Your task to perform on an android device: Do I have any events this weekend? Image 0: 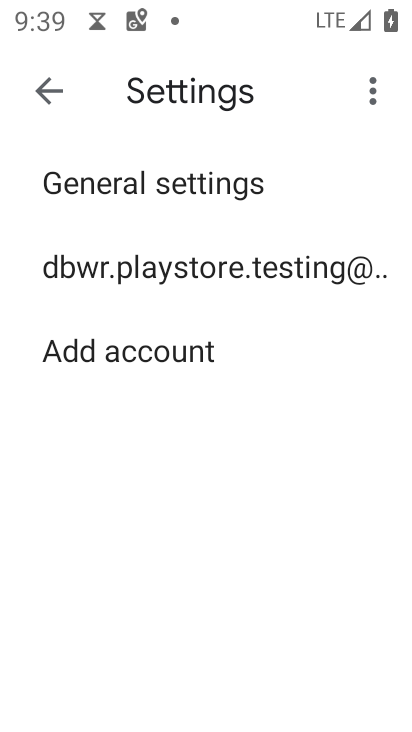
Step 0: click (37, 92)
Your task to perform on an android device: Do I have any events this weekend? Image 1: 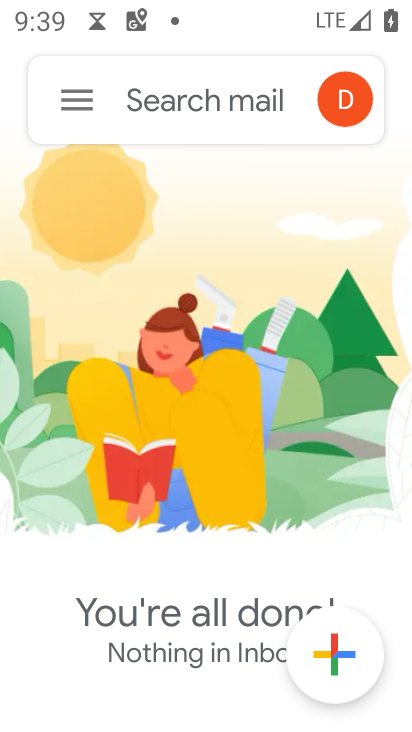
Step 1: press home button
Your task to perform on an android device: Do I have any events this weekend? Image 2: 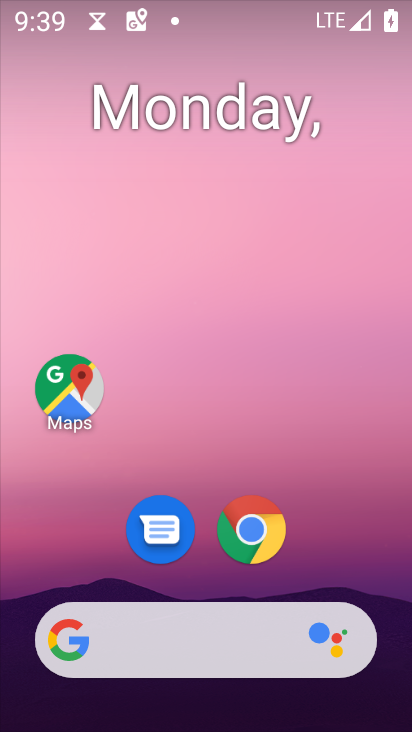
Step 2: click (172, 0)
Your task to perform on an android device: Do I have any events this weekend? Image 3: 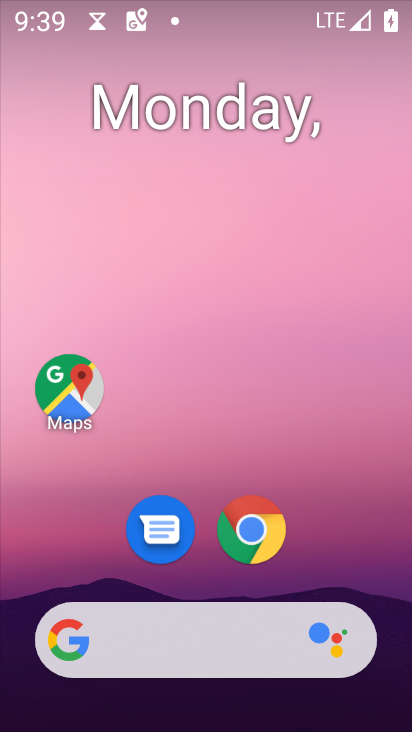
Step 3: drag from (284, 585) to (172, 140)
Your task to perform on an android device: Do I have any events this weekend? Image 4: 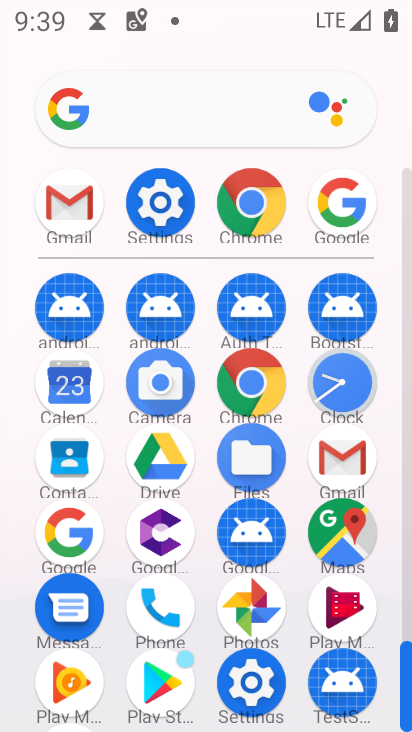
Step 4: click (69, 381)
Your task to perform on an android device: Do I have any events this weekend? Image 5: 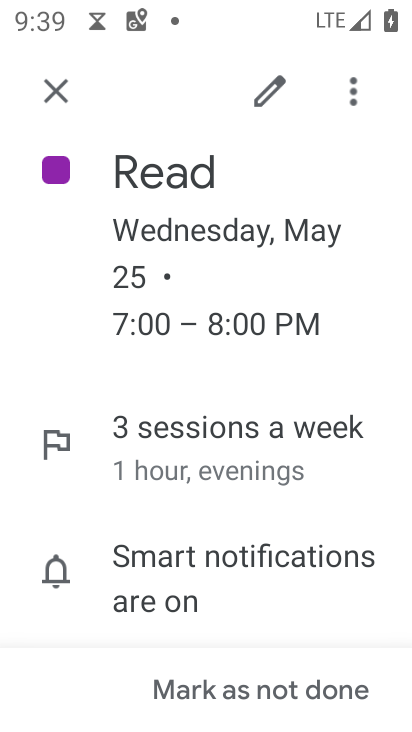
Step 5: click (48, 103)
Your task to perform on an android device: Do I have any events this weekend? Image 6: 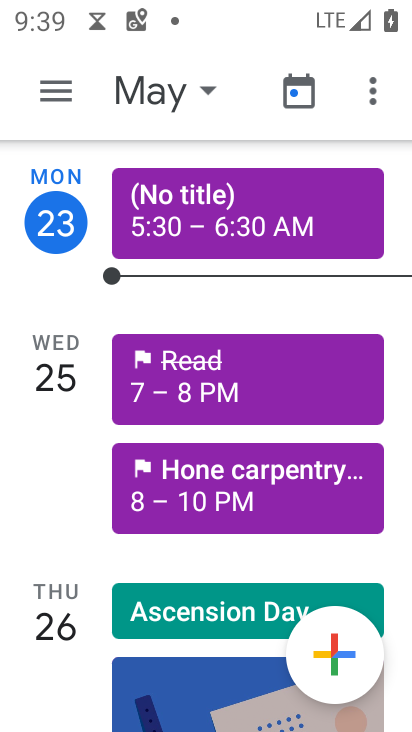
Step 6: press back button
Your task to perform on an android device: Do I have any events this weekend? Image 7: 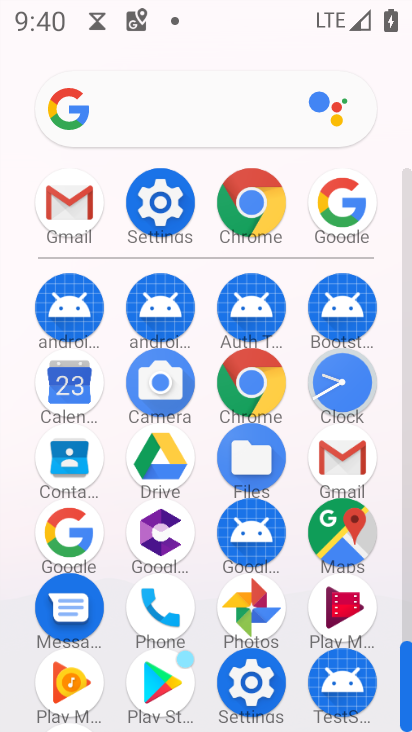
Step 7: click (67, 392)
Your task to perform on an android device: Do I have any events this weekend? Image 8: 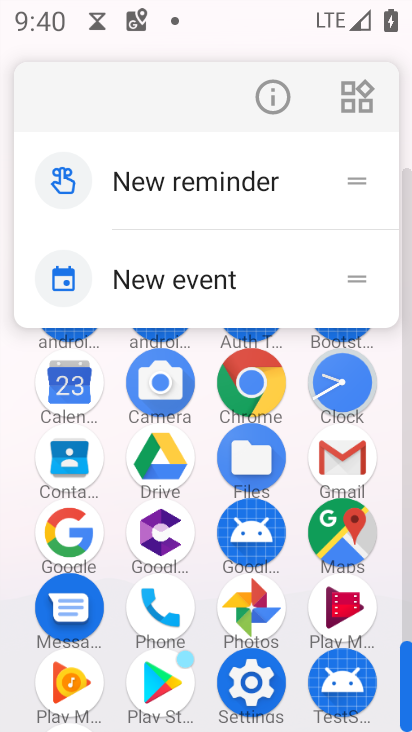
Step 8: click (87, 390)
Your task to perform on an android device: Do I have any events this weekend? Image 9: 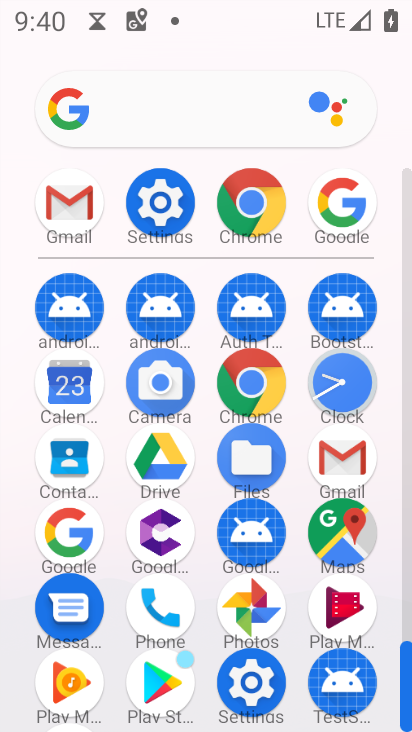
Step 9: click (87, 390)
Your task to perform on an android device: Do I have any events this weekend? Image 10: 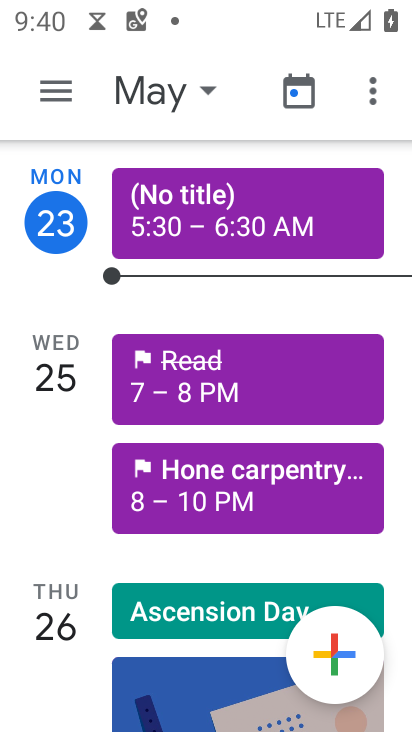
Step 10: click (209, 93)
Your task to perform on an android device: Do I have any events this weekend? Image 11: 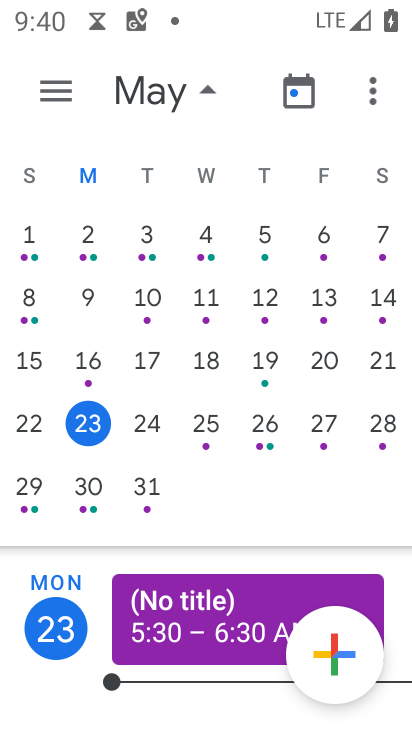
Step 11: click (100, 484)
Your task to perform on an android device: Do I have any events this weekend? Image 12: 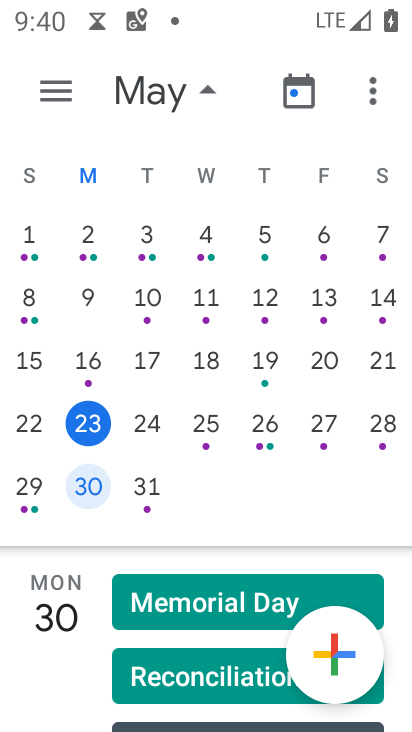
Step 12: click (100, 484)
Your task to perform on an android device: Do I have any events this weekend? Image 13: 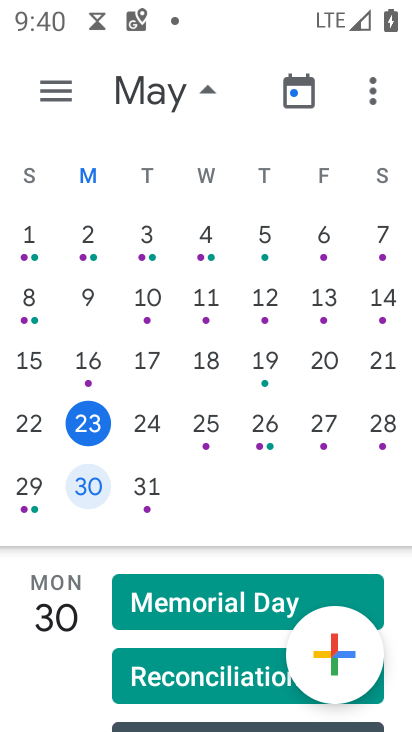
Step 13: click (100, 484)
Your task to perform on an android device: Do I have any events this weekend? Image 14: 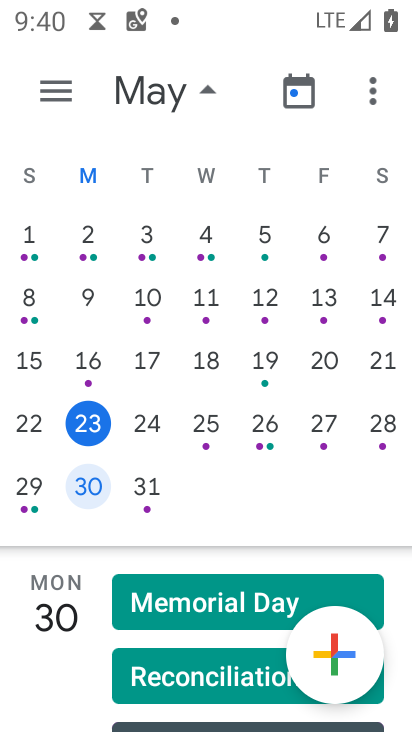
Step 14: click (100, 482)
Your task to perform on an android device: Do I have any events this weekend? Image 15: 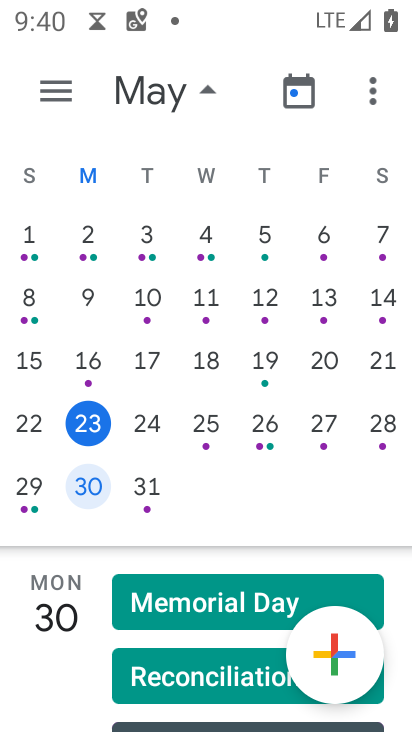
Step 15: click (188, 683)
Your task to perform on an android device: Do I have any events this weekend? Image 16: 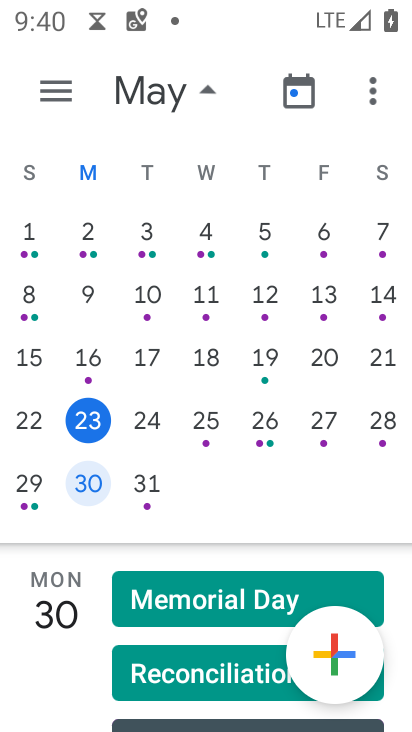
Step 16: click (189, 680)
Your task to perform on an android device: Do I have any events this weekend? Image 17: 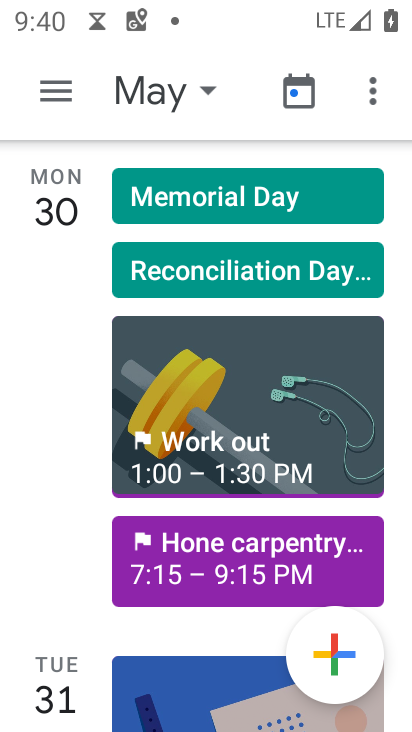
Step 17: click (189, 680)
Your task to perform on an android device: Do I have any events this weekend? Image 18: 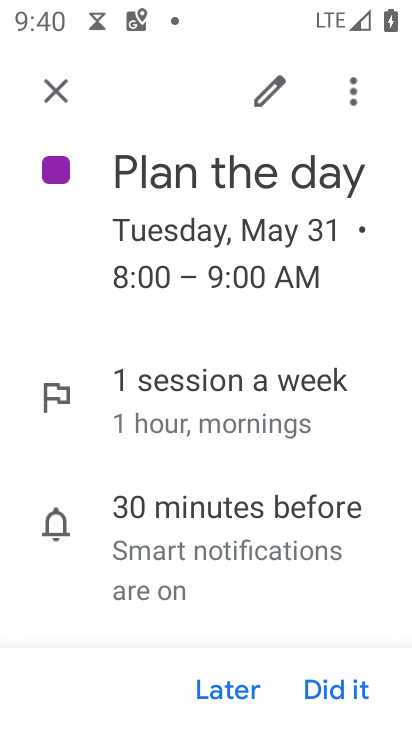
Step 18: task complete